Your task to perform on an android device: change the clock style Image 0: 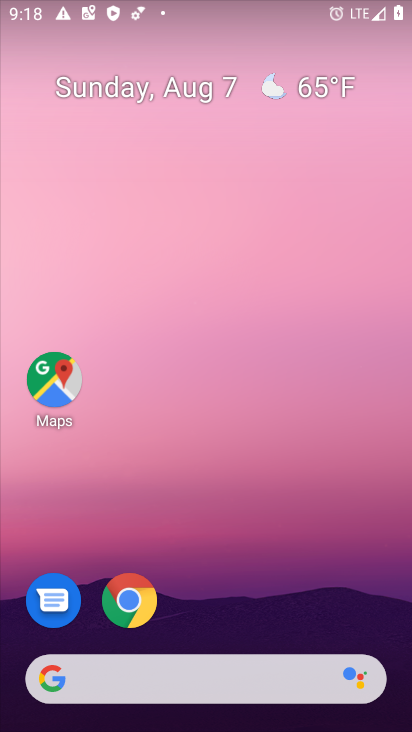
Step 0: drag from (197, 515) to (165, 240)
Your task to perform on an android device: change the clock style Image 1: 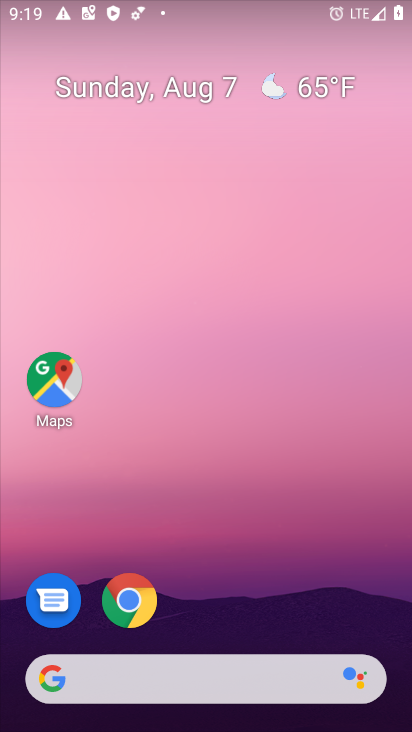
Step 1: drag from (204, 515) to (176, 150)
Your task to perform on an android device: change the clock style Image 2: 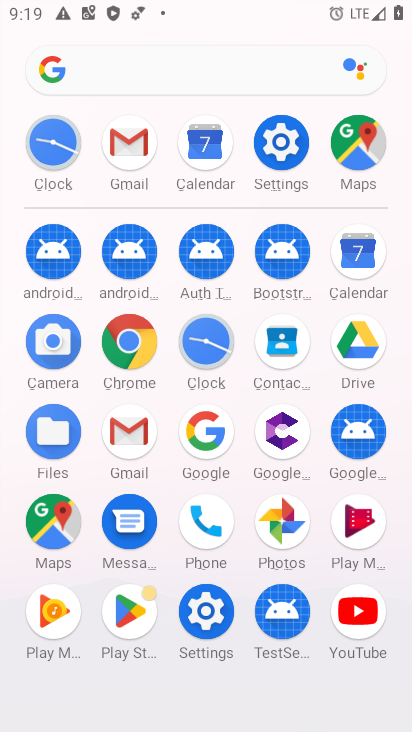
Step 2: click (189, 333)
Your task to perform on an android device: change the clock style Image 3: 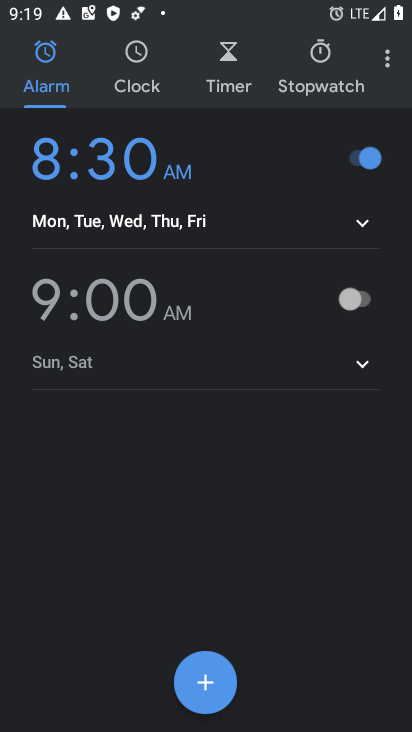
Step 3: click (390, 57)
Your task to perform on an android device: change the clock style Image 4: 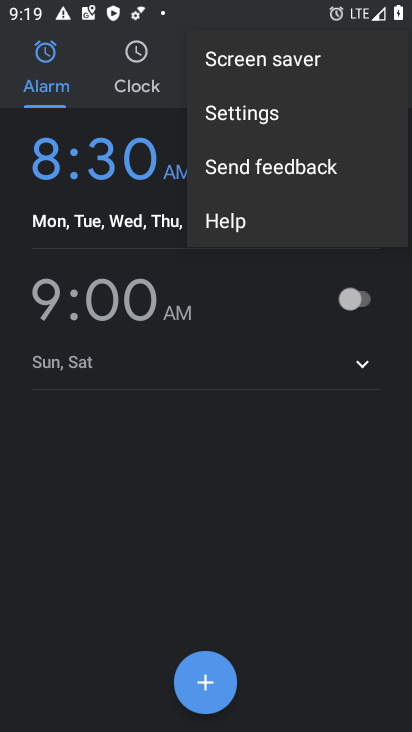
Step 4: click (254, 123)
Your task to perform on an android device: change the clock style Image 5: 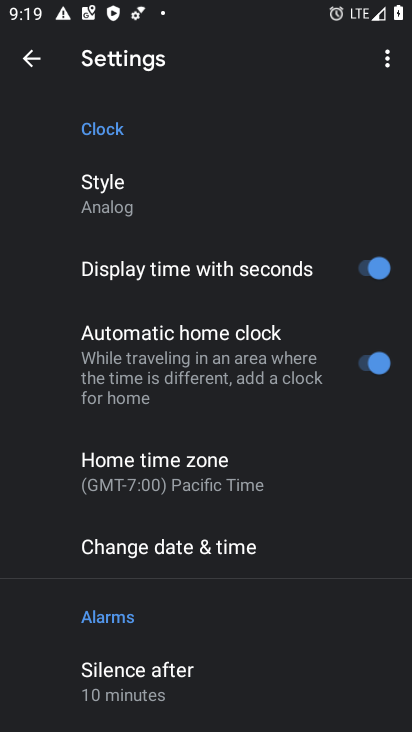
Step 5: click (124, 207)
Your task to perform on an android device: change the clock style Image 6: 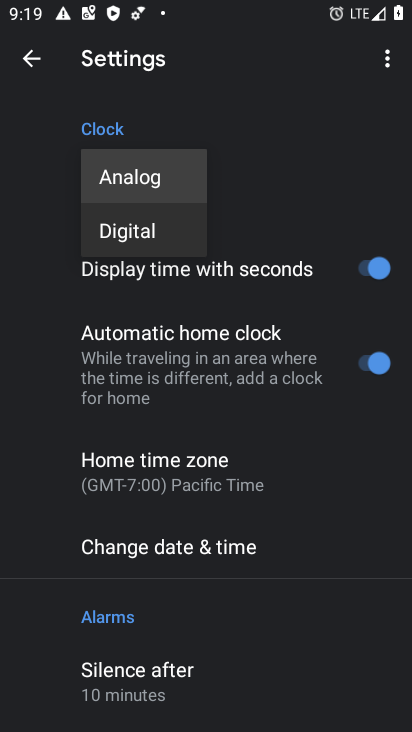
Step 6: click (127, 233)
Your task to perform on an android device: change the clock style Image 7: 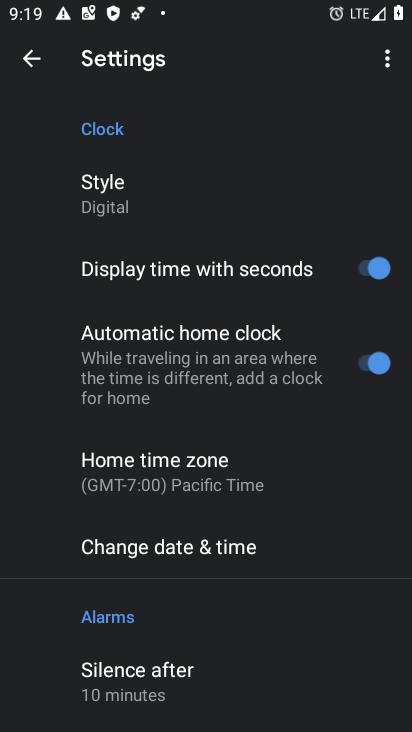
Step 7: task complete